Your task to perform on an android device: Search for apple airpods pro on ebay.com, select the first entry, and add it to the cart. Image 0: 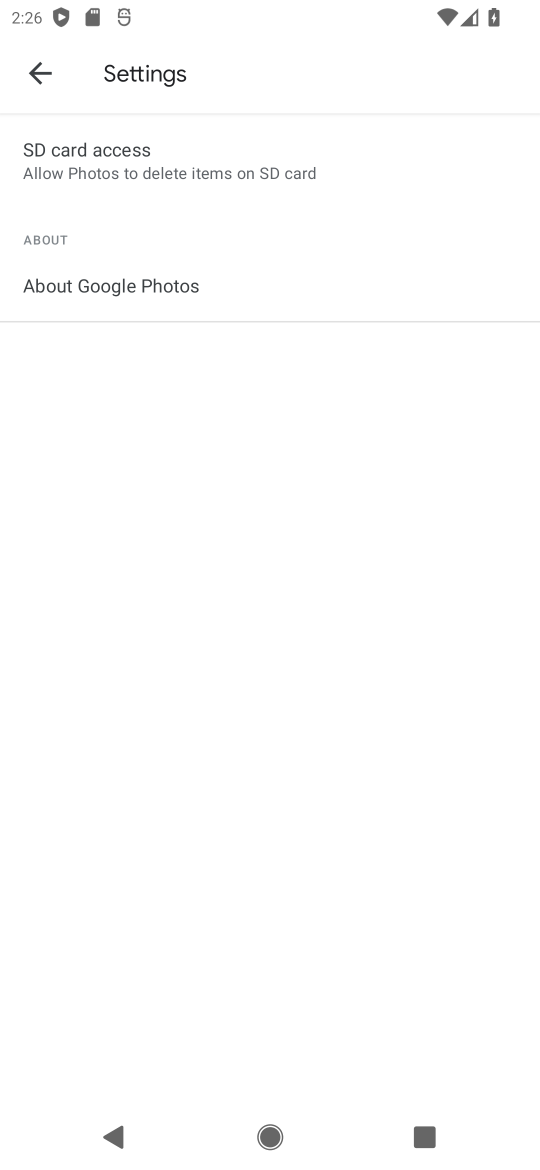
Step 0: press home button
Your task to perform on an android device: Search for apple airpods pro on ebay.com, select the first entry, and add it to the cart. Image 1: 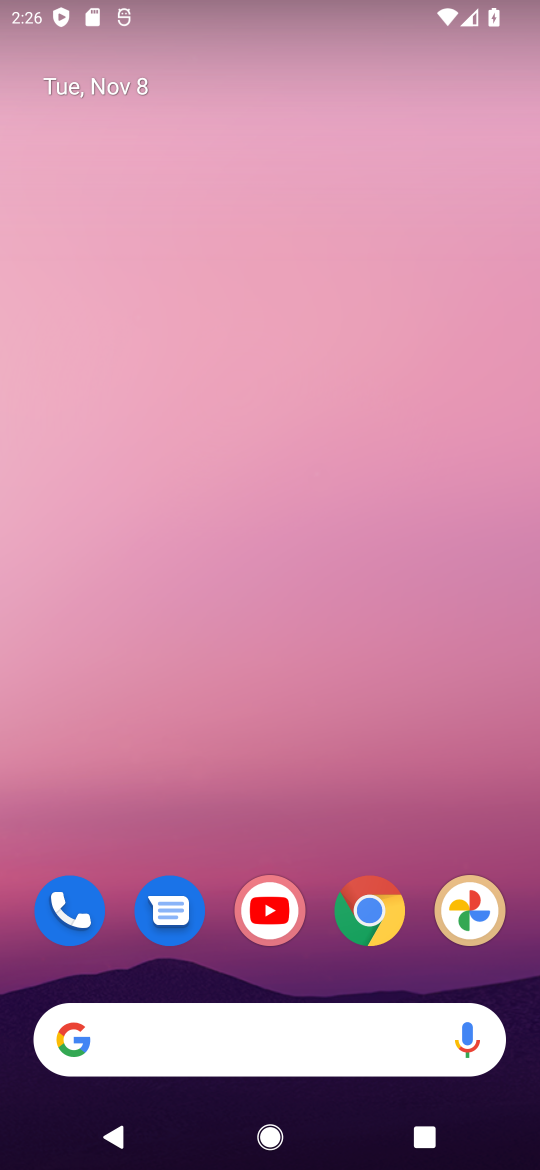
Step 1: drag from (320, 934) to (321, 54)
Your task to perform on an android device: Search for apple airpods pro on ebay.com, select the first entry, and add it to the cart. Image 2: 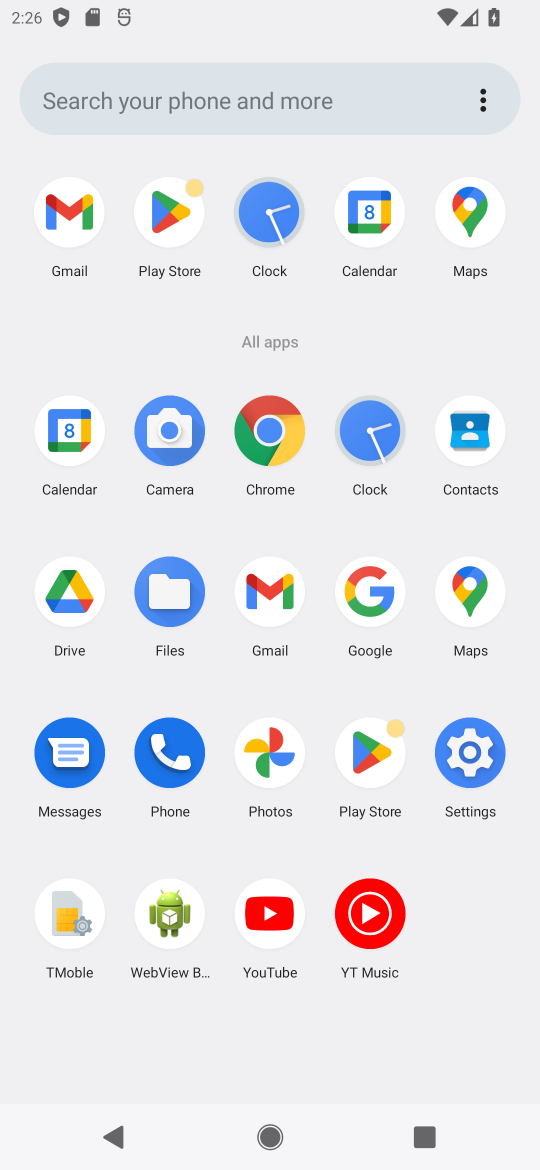
Step 2: click (273, 428)
Your task to perform on an android device: Search for apple airpods pro on ebay.com, select the first entry, and add it to the cart. Image 3: 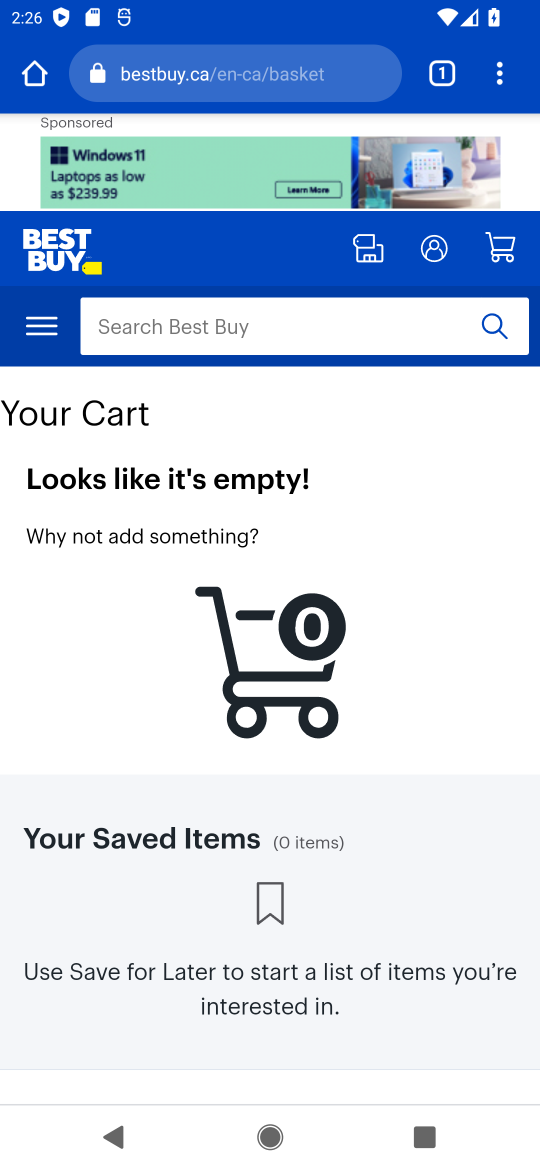
Step 3: click (270, 81)
Your task to perform on an android device: Search for apple airpods pro on ebay.com, select the first entry, and add it to the cart. Image 4: 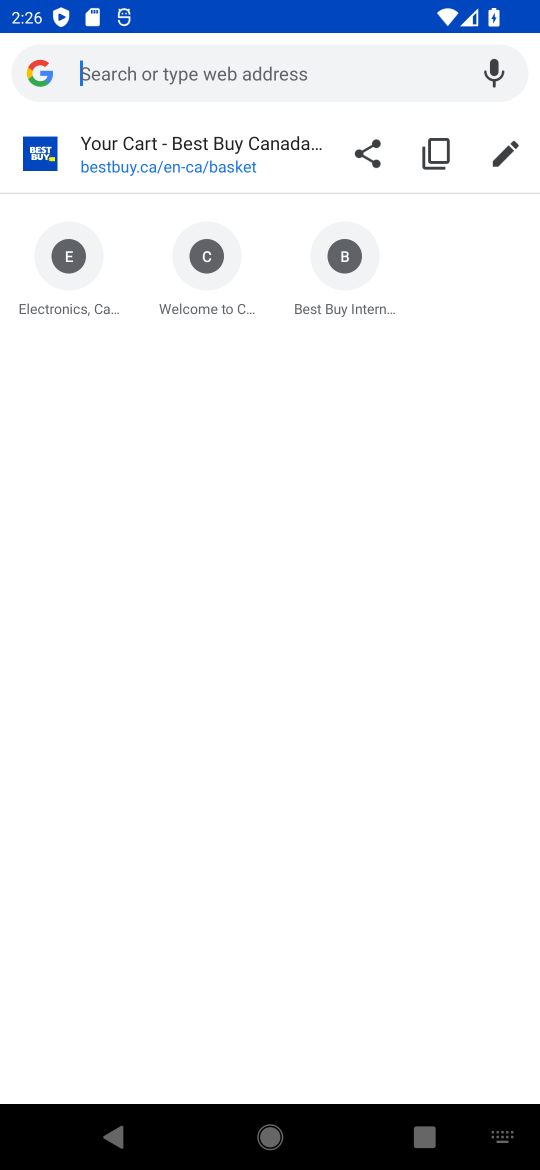
Step 4: type "ebay.com"
Your task to perform on an android device: Search for apple airpods pro on ebay.com, select the first entry, and add it to the cart. Image 5: 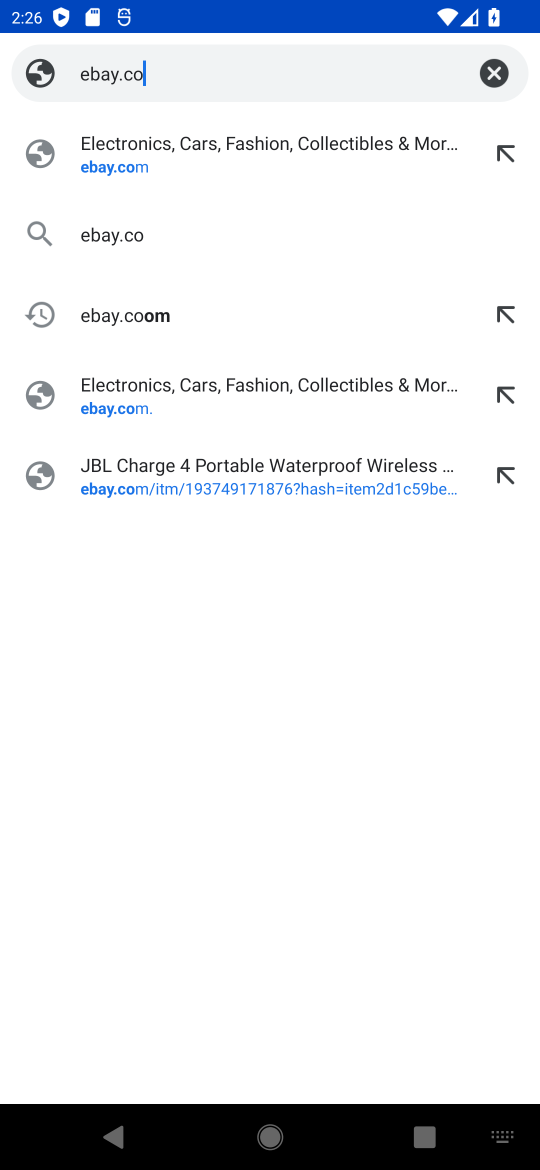
Step 5: press enter
Your task to perform on an android device: Search for apple airpods pro on ebay.com, select the first entry, and add it to the cart. Image 6: 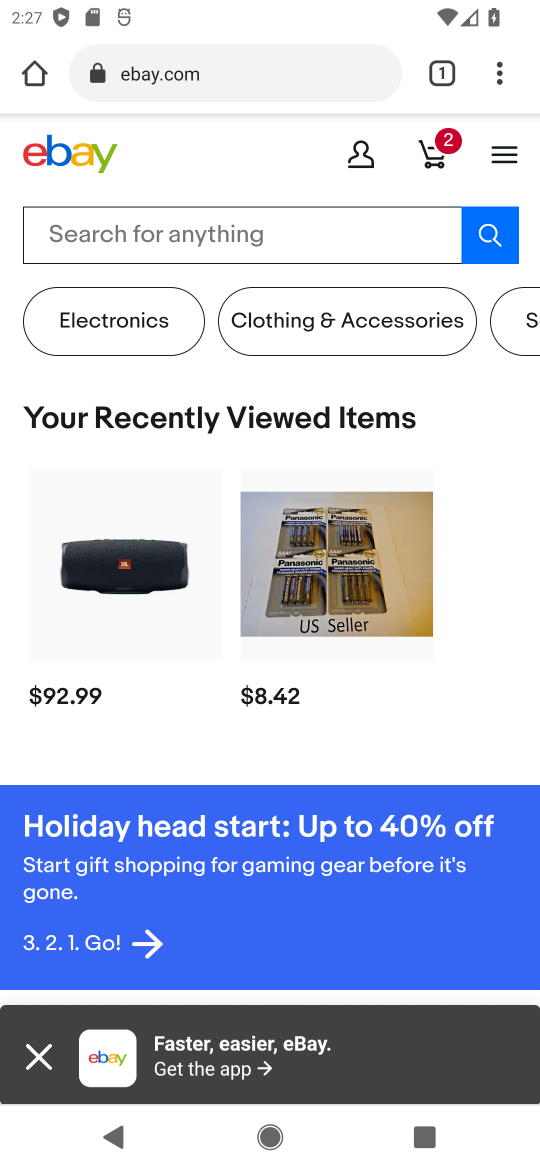
Step 6: click (343, 235)
Your task to perform on an android device: Search for apple airpods pro on ebay.com, select the first entry, and add it to the cart. Image 7: 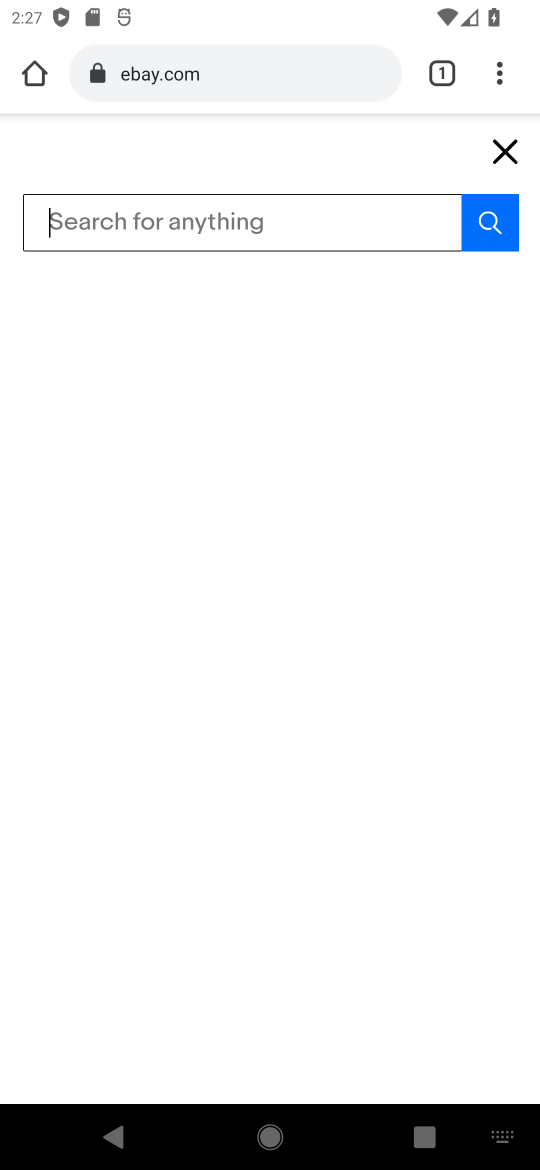
Step 7: type "apple airpods pro"
Your task to perform on an android device: Search for apple airpods pro on ebay.com, select the first entry, and add it to the cart. Image 8: 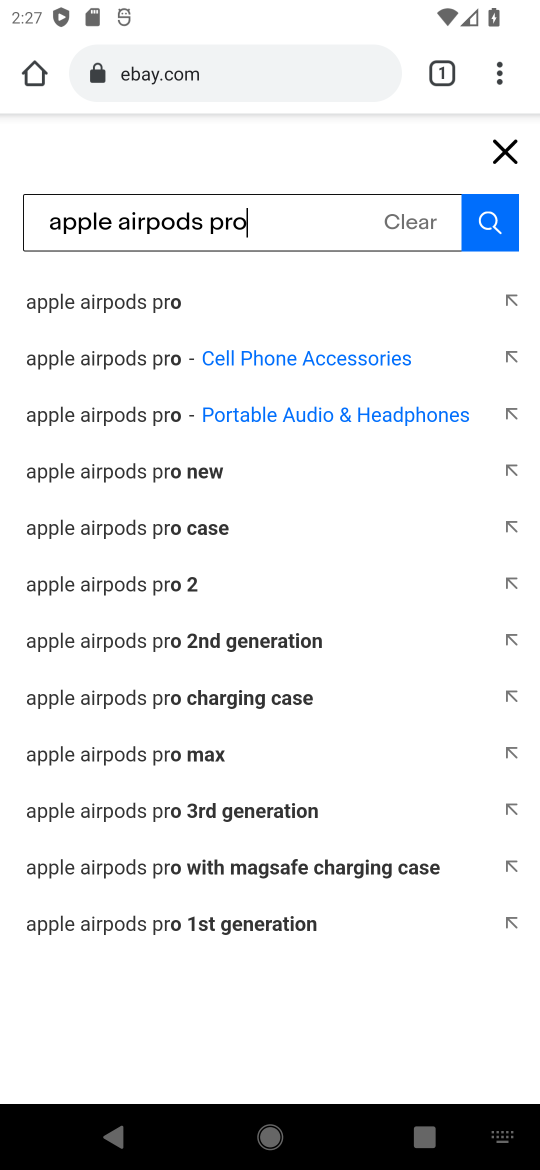
Step 8: press enter
Your task to perform on an android device: Search for apple airpods pro on ebay.com, select the first entry, and add it to the cart. Image 9: 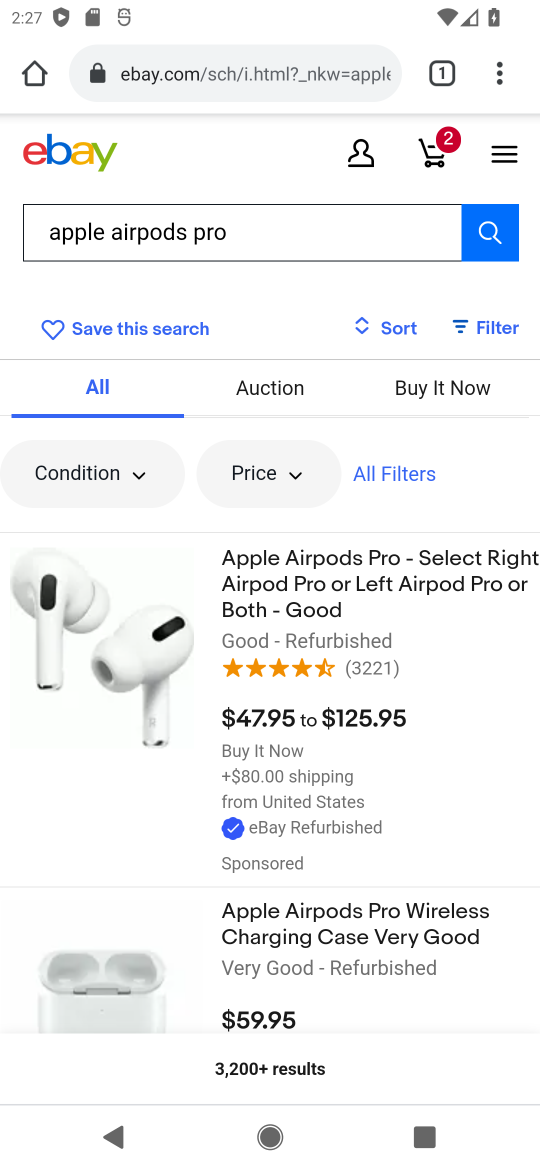
Step 9: click (291, 569)
Your task to perform on an android device: Search for apple airpods pro on ebay.com, select the first entry, and add it to the cart. Image 10: 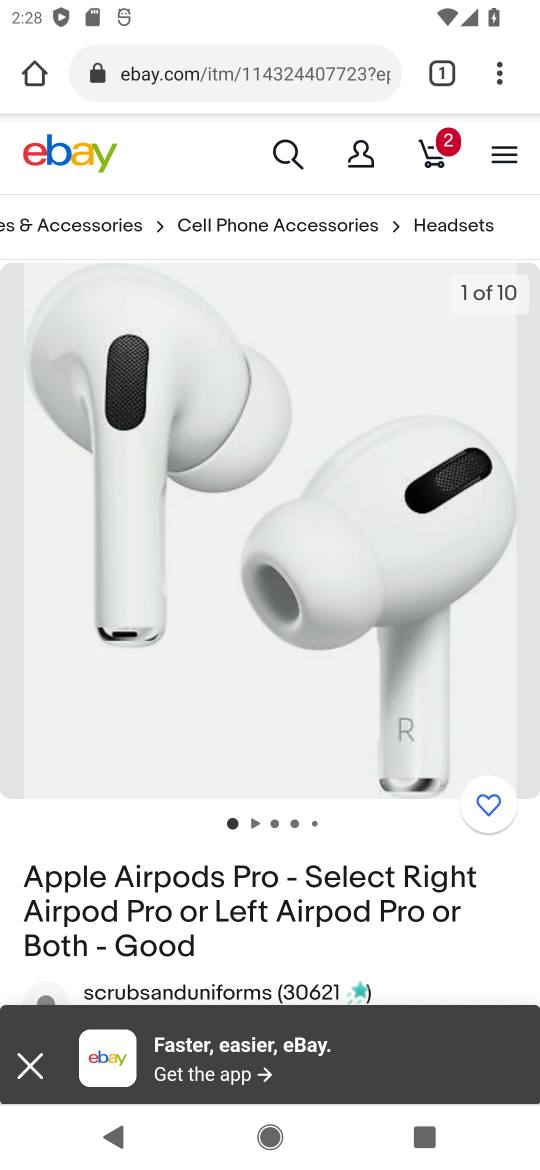
Step 10: drag from (301, 814) to (335, 154)
Your task to perform on an android device: Search for apple airpods pro on ebay.com, select the first entry, and add it to the cart. Image 11: 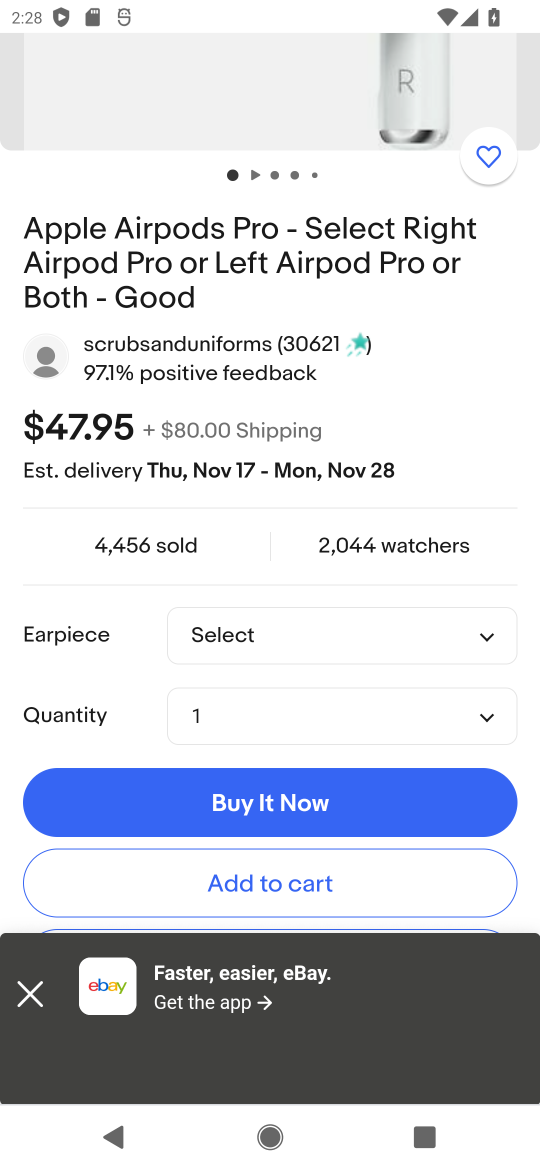
Step 11: click (281, 875)
Your task to perform on an android device: Search for apple airpods pro on ebay.com, select the first entry, and add it to the cart. Image 12: 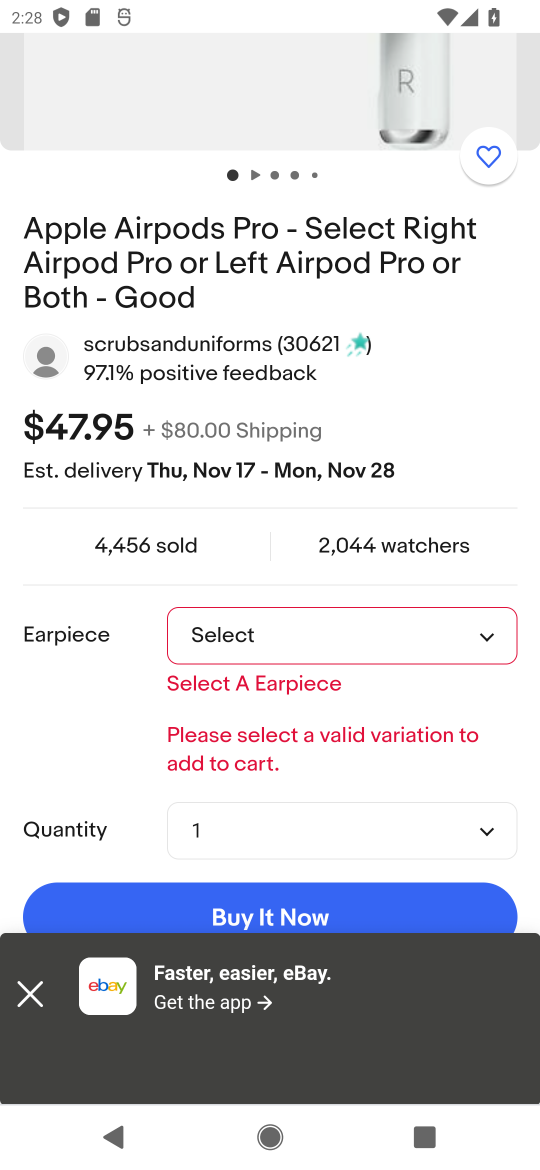
Step 12: task complete